Your task to perform on an android device: turn on improve location accuracy Image 0: 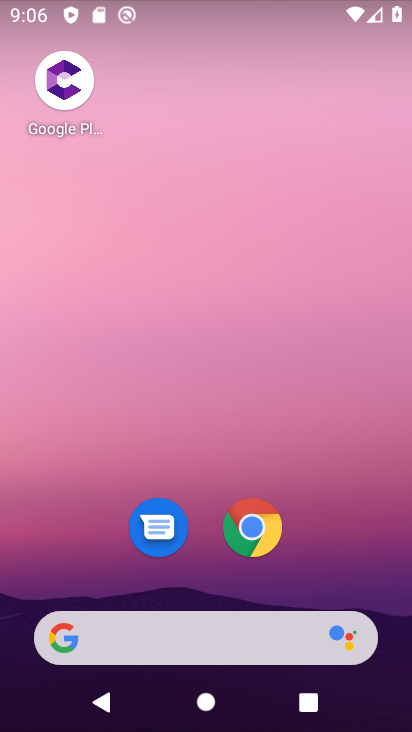
Step 0: drag from (394, 704) to (370, 219)
Your task to perform on an android device: turn on improve location accuracy Image 1: 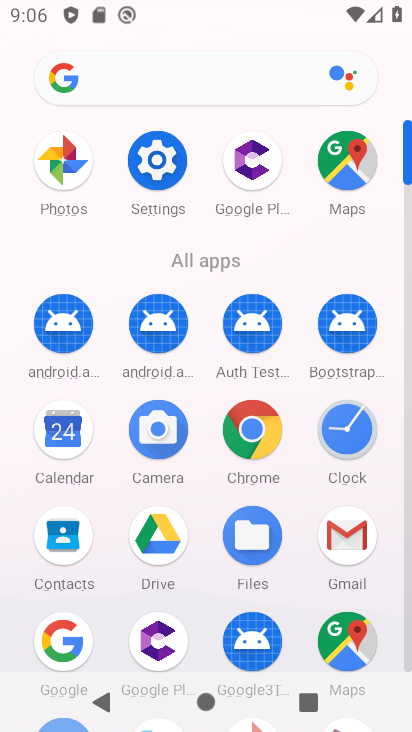
Step 1: click (147, 171)
Your task to perform on an android device: turn on improve location accuracy Image 2: 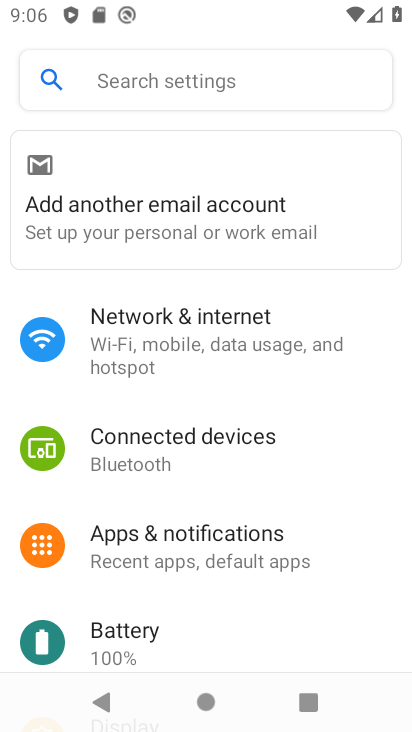
Step 2: drag from (266, 655) to (259, 236)
Your task to perform on an android device: turn on improve location accuracy Image 3: 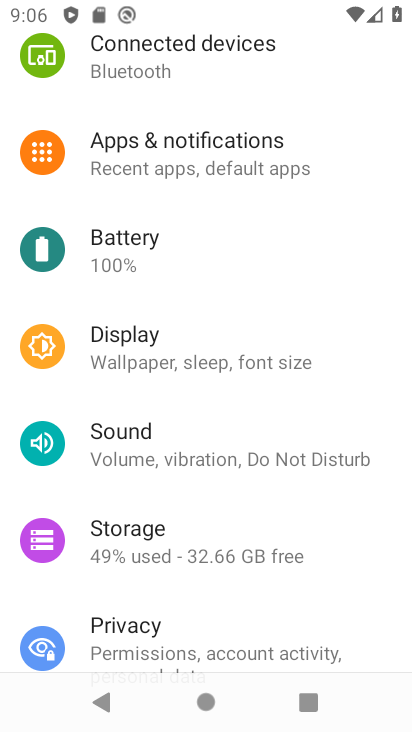
Step 3: drag from (219, 624) to (203, 342)
Your task to perform on an android device: turn on improve location accuracy Image 4: 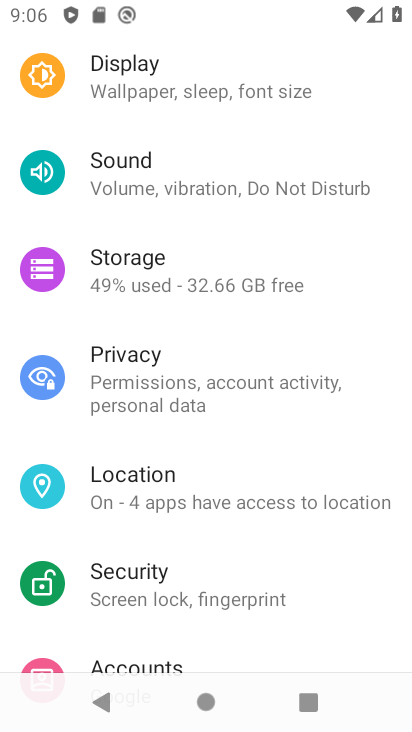
Step 4: click (156, 489)
Your task to perform on an android device: turn on improve location accuracy Image 5: 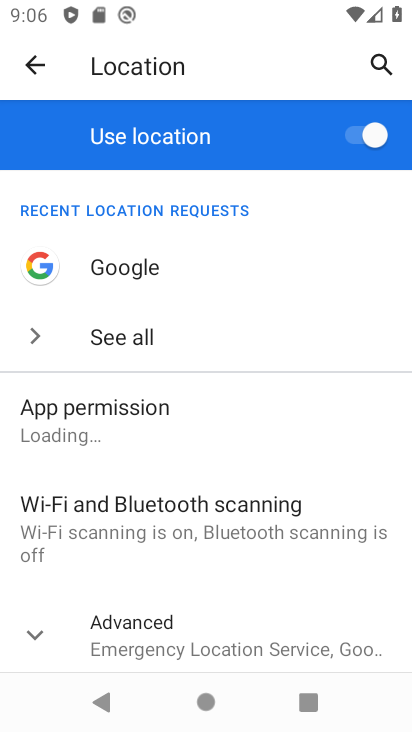
Step 5: drag from (224, 622) to (242, 309)
Your task to perform on an android device: turn on improve location accuracy Image 6: 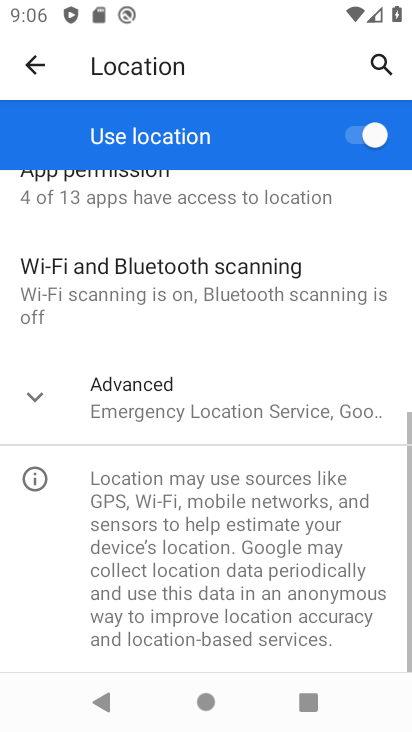
Step 6: click (40, 390)
Your task to perform on an android device: turn on improve location accuracy Image 7: 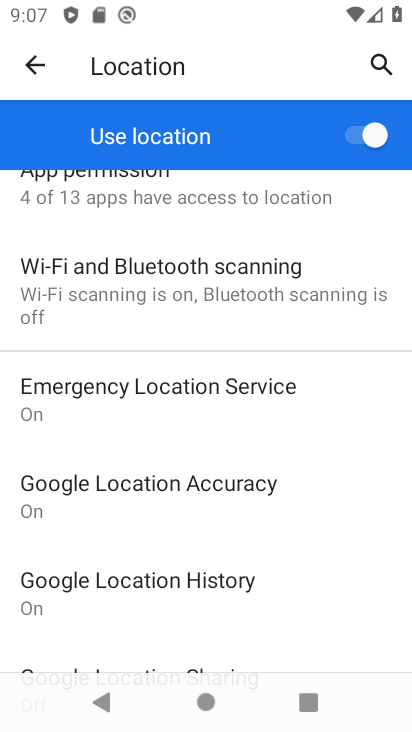
Step 7: click (71, 491)
Your task to perform on an android device: turn on improve location accuracy Image 8: 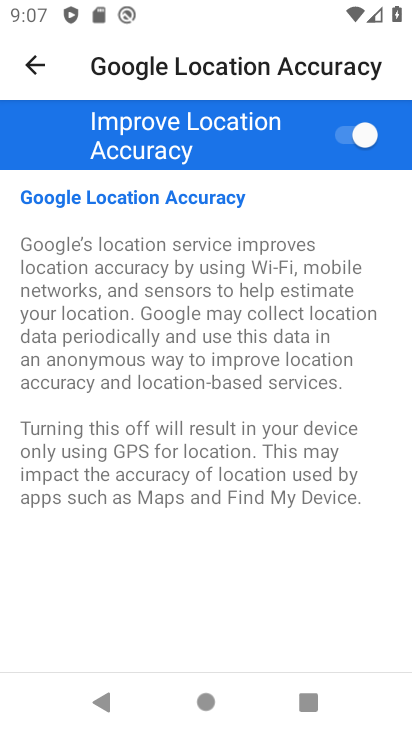
Step 8: task complete